Your task to perform on an android device: all mails in gmail Image 0: 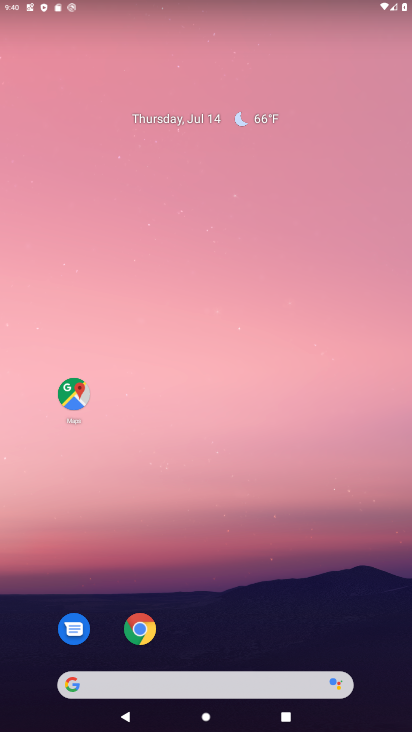
Step 0: press home button
Your task to perform on an android device: all mails in gmail Image 1: 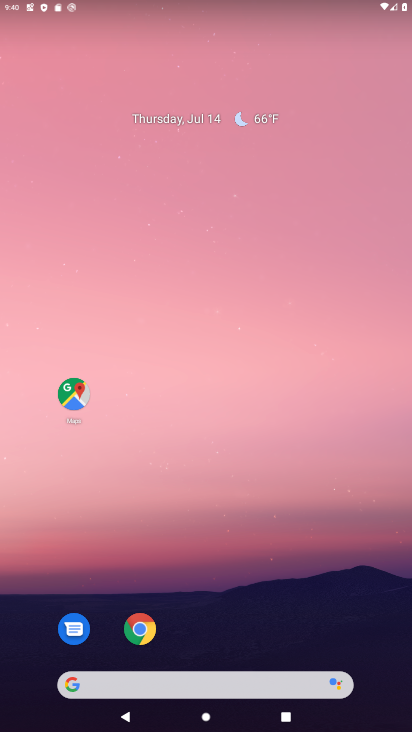
Step 1: drag from (269, 580) to (215, 1)
Your task to perform on an android device: all mails in gmail Image 2: 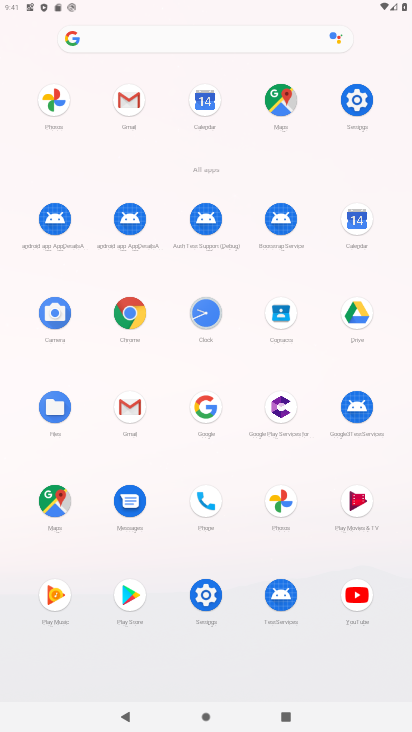
Step 2: click (127, 102)
Your task to perform on an android device: all mails in gmail Image 3: 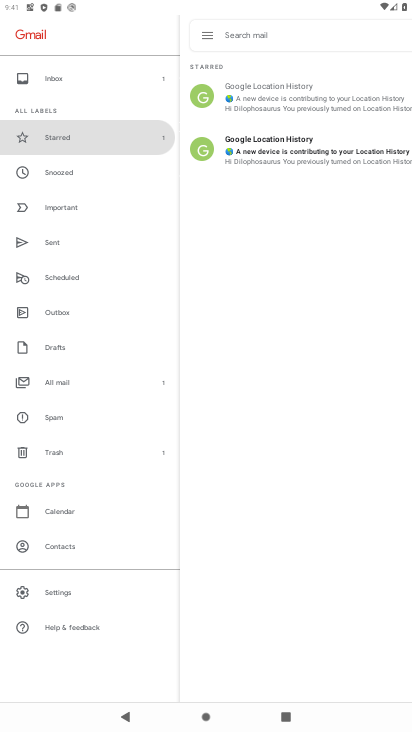
Step 3: click (60, 382)
Your task to perform on an android device: all mails in gmail Image 4: 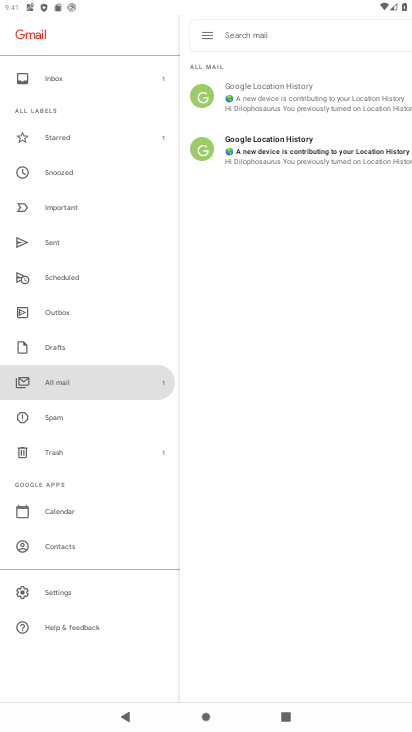
Step 4: task complete